Your task to perform on an android device: turn off location Image 0: 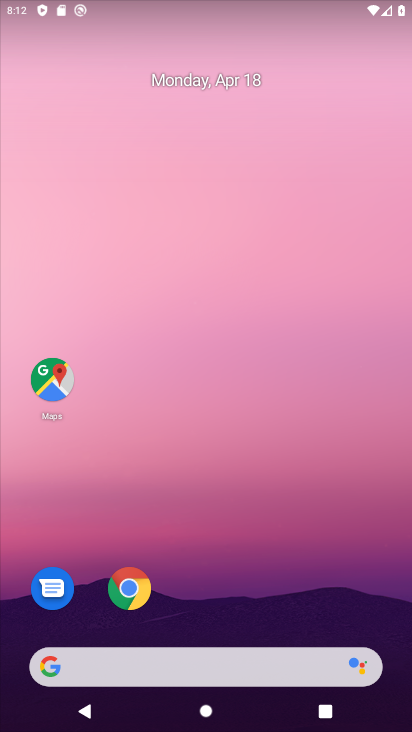
Step 0: drag from (248, 467) to (286, 57)
Your task to perform on an android device: turn off location Image 1: 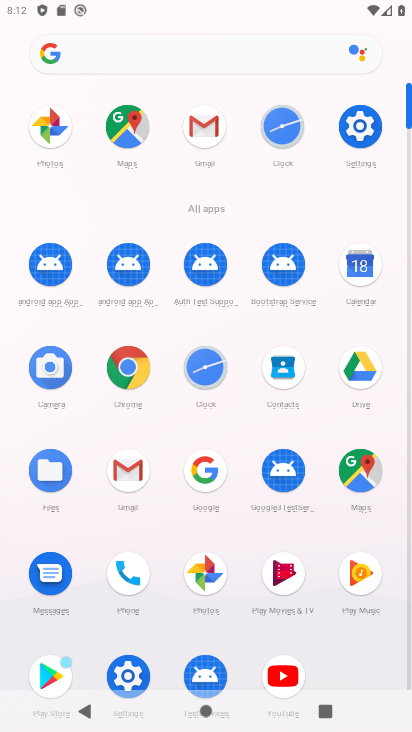
Step 1: click (365, 134)
Your task to perform on an android device: turn off location Image 2: 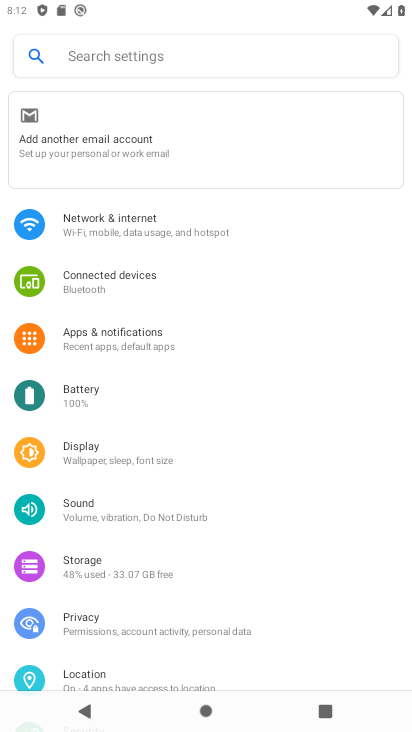
Step 2: drag from (130, 611) to (155, 338)
Your task to perform on an android device: turn off location Image 3: 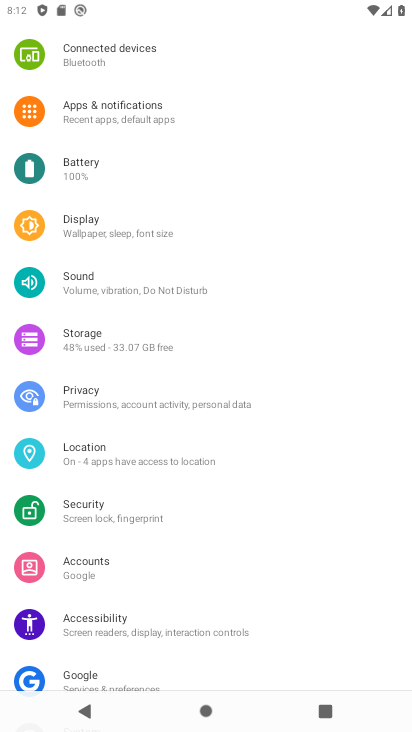
Step 3: click (78, 455)
Your task to perform on an android device: turn off location Image 4: 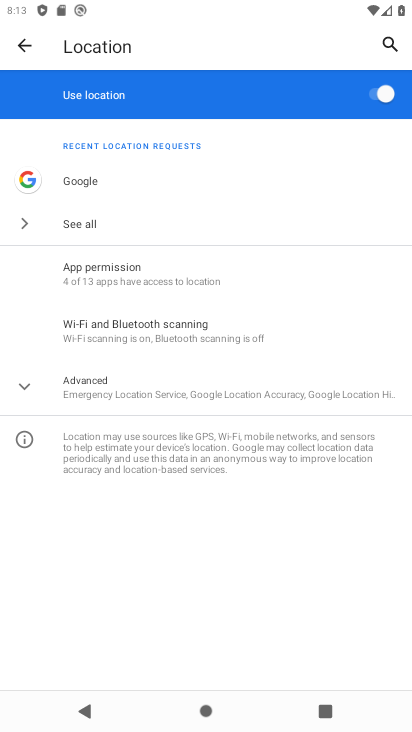
Step 4: task complete